Your task to perform on an android device: turn on notifications settings in the gmail app Image 0: 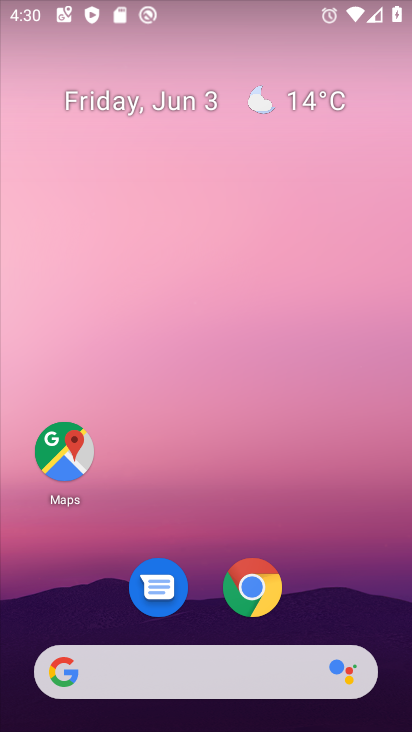
Step 0: drag from (164, 601) to (109, 192)
Your task to perform on an android device: turn on notifications settings in the gmail app Image 1: 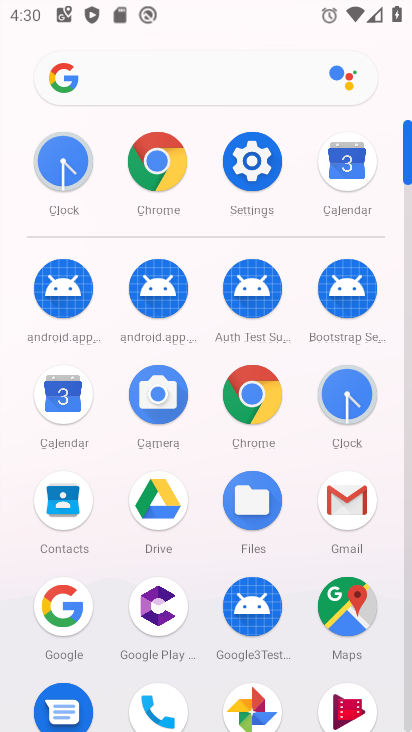
Step 1: click (363, 506)
Your task to perform on an android device: turn on notifications settings in the gmail app Image 2: 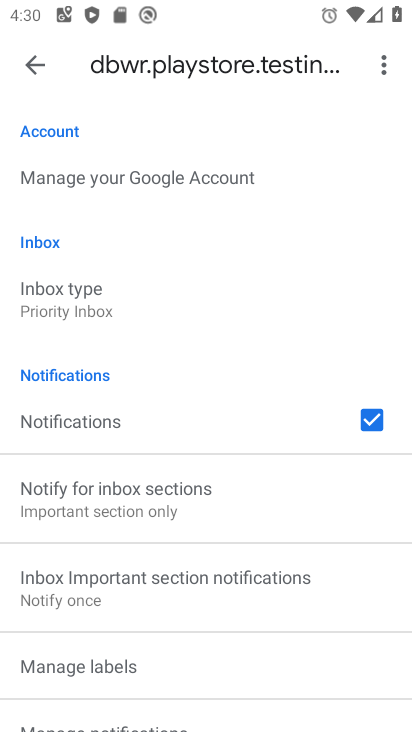
Step 2: click (26, 72)
Your task to perform on an android device: turn on notifications settings in the gmail app Image 3: 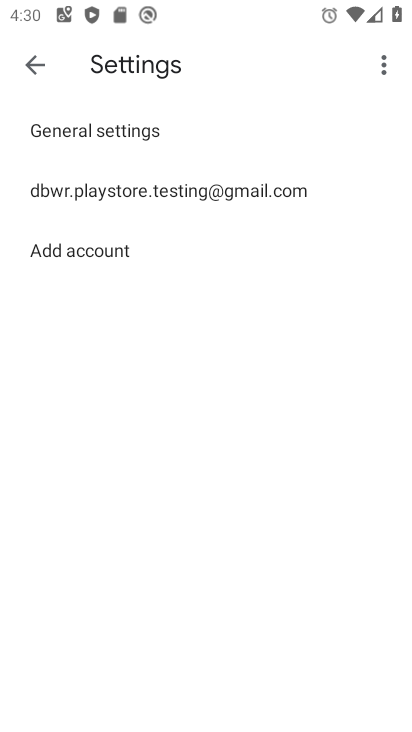
Step 3: click (94, 136)
Your task to perform on an android device: turn on notifications settings in the gmail app Image 4: 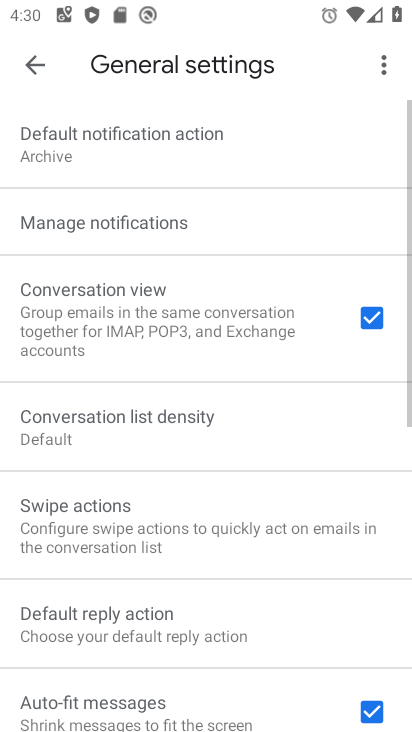
Step 4: click (110, 230)
Your task to perform on an android device: turn on notifications settings in the gmail app Image 5: 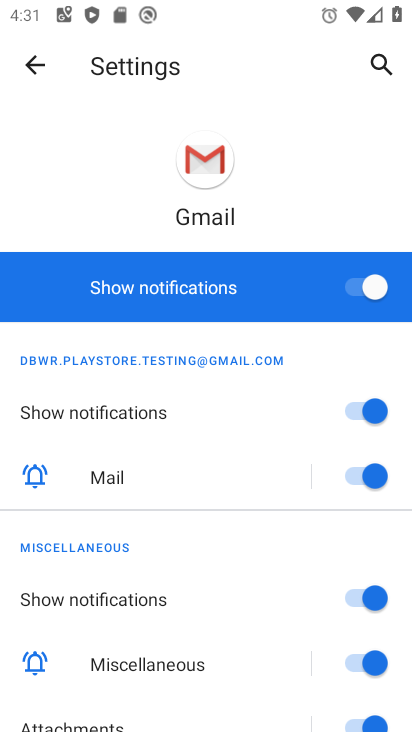
Step 5: task complete